Your task to perform on an android device: turn notification dots on Image 0: 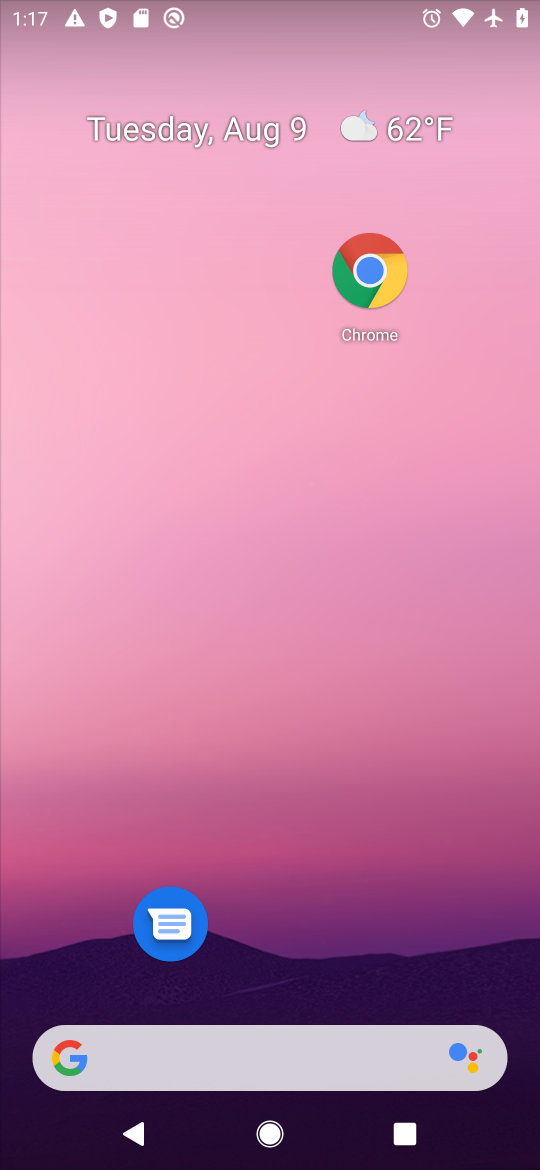
Step 0: drag from (319, 994) to (248, 14)
Your task to perform on an android device: turn notification dots on Image 1: 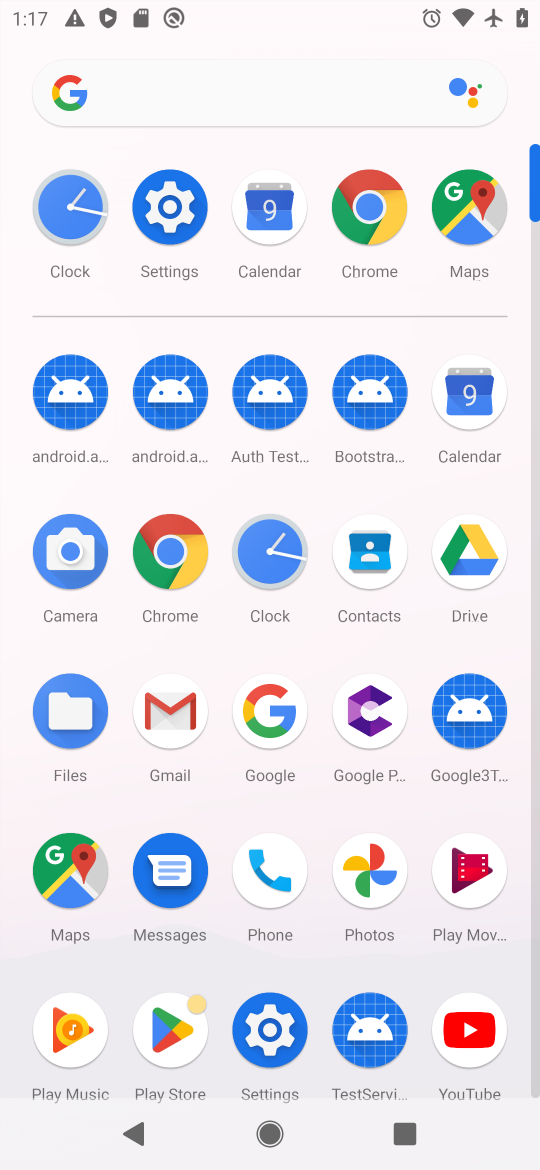
Step 1: click (261, 1075)
Your task to perform on an android device: turn notification dots on Image 2: 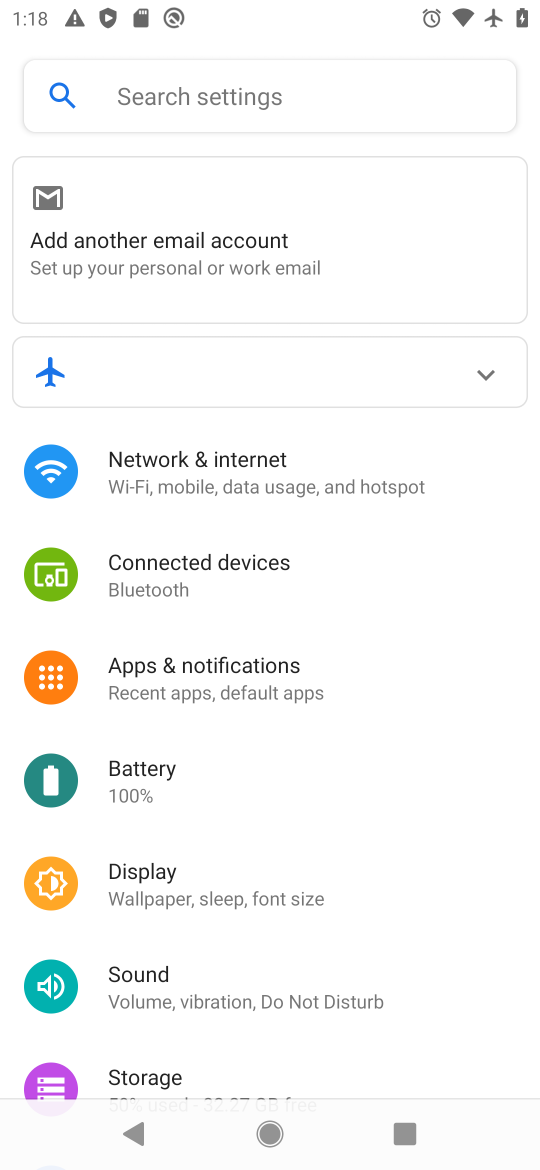
Step 2: drag from (166, 996) to (202, 713)
Your task to perform on an android device: turn notification dots on Image 3: 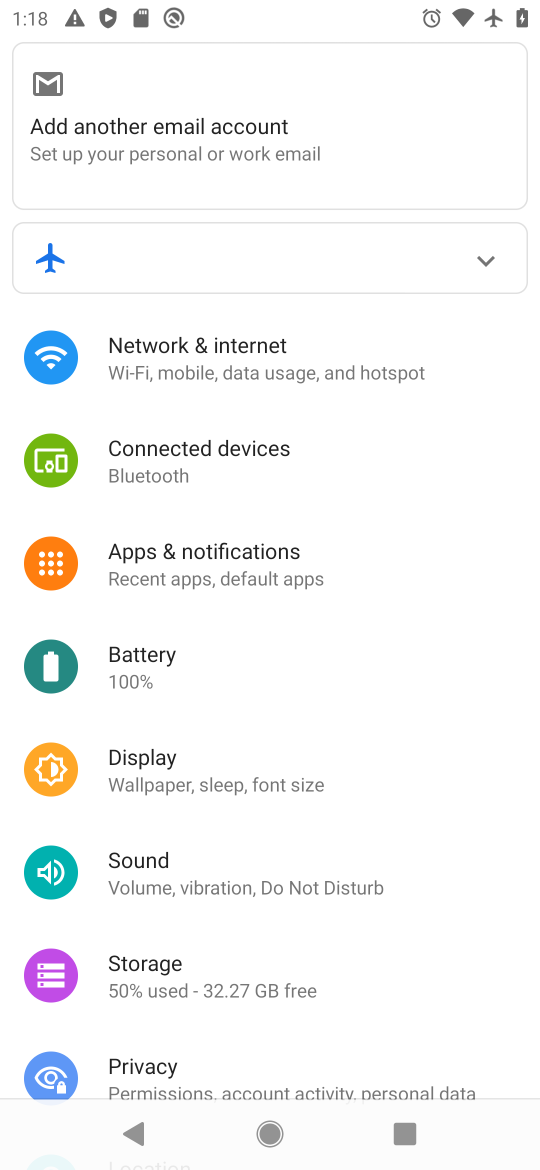
Step 3: click (239, 549)
Your task to perform on an android device: turn notification dots on Image 4: 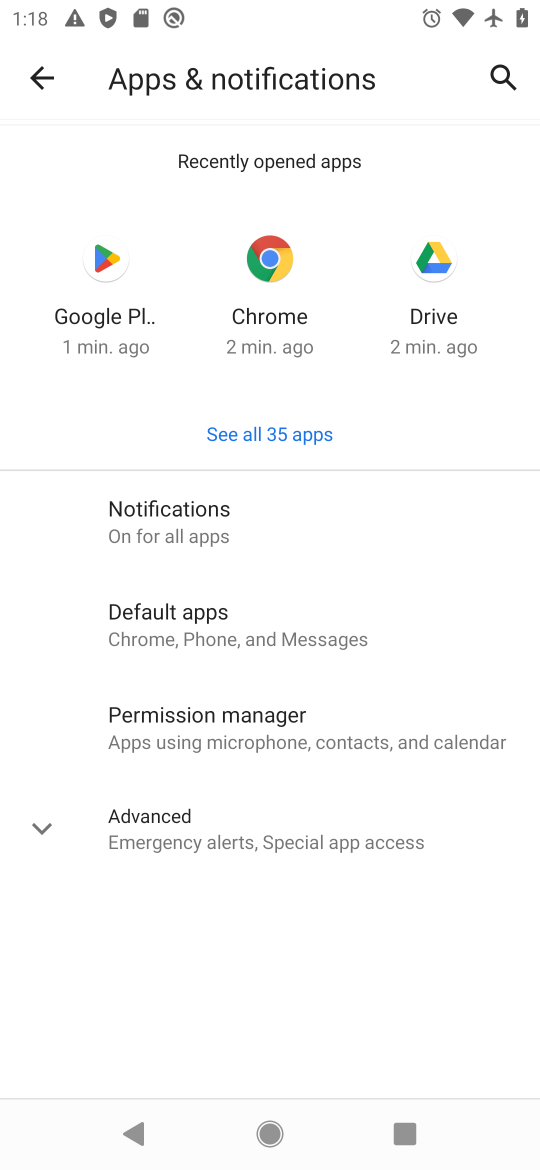
Step 4: task complete